Your task to perform on an android device: manage bookmarks in the chrome app Image 0: 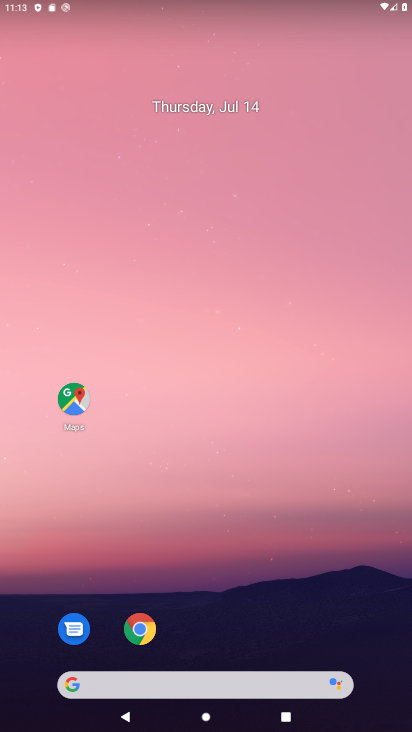
Step 0: click (139, 620)
Your task to perform on an android device: manage bookmarks in the chrome app Image 1: 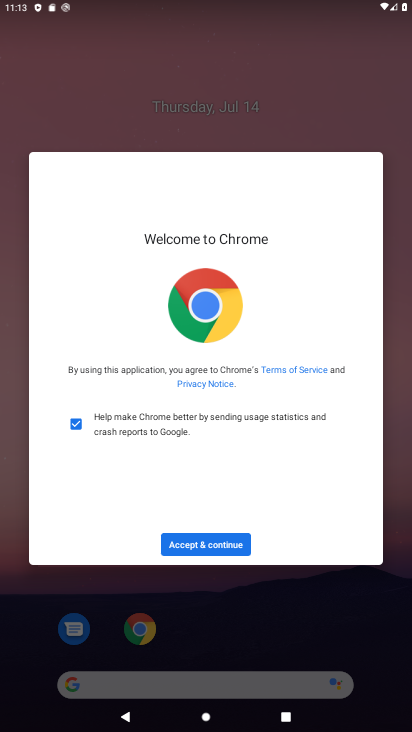
Step 1: click (173, 539)
Your task to perform on an android device: manage bookmarks in the chrome app Image 2: 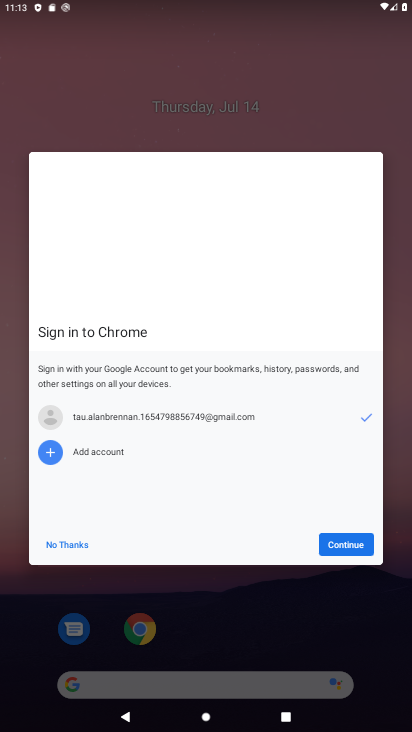
Step 2: click (344, 538)
Your task to perform on an android device: manage bookmarks in the chrome app Image 3: 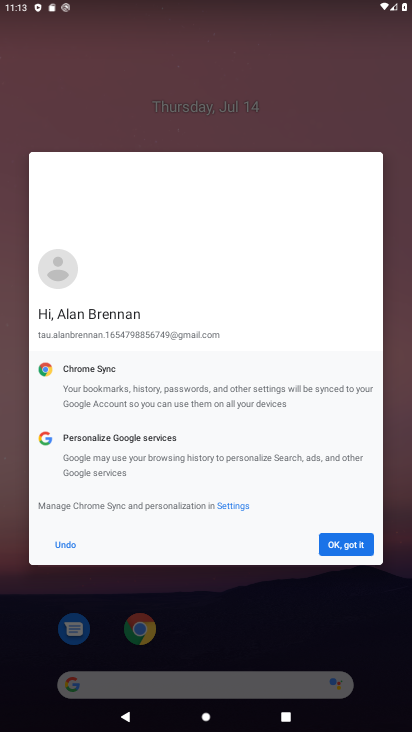
Step 3: click (344, 538)
Your task to perform on an android device: manage bookmarks in the chrome app Image 4: 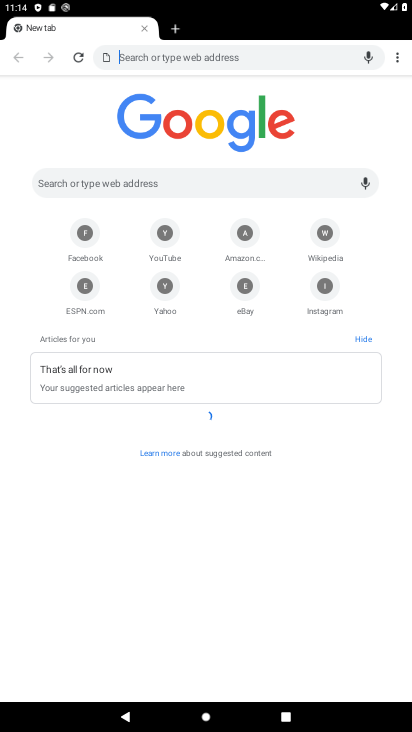
Step 4: click (402, 66)
Your task to perform on an android device: manage bookmarks in the chrome app Image 5: 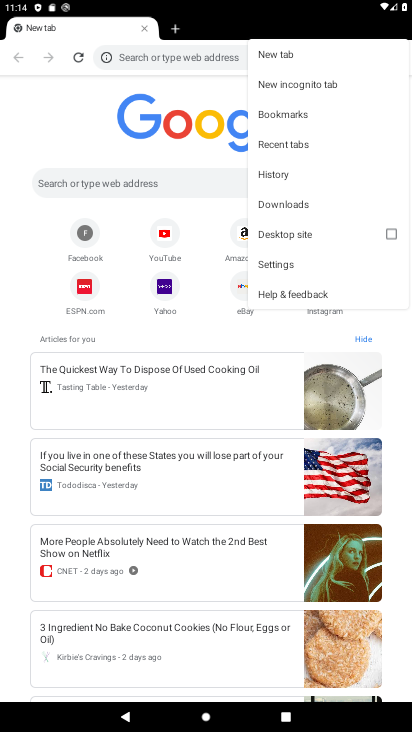
Step 5: click (291, 116)
Your task to perform on an android device: manage bookmarks in the chrome app Image 6: 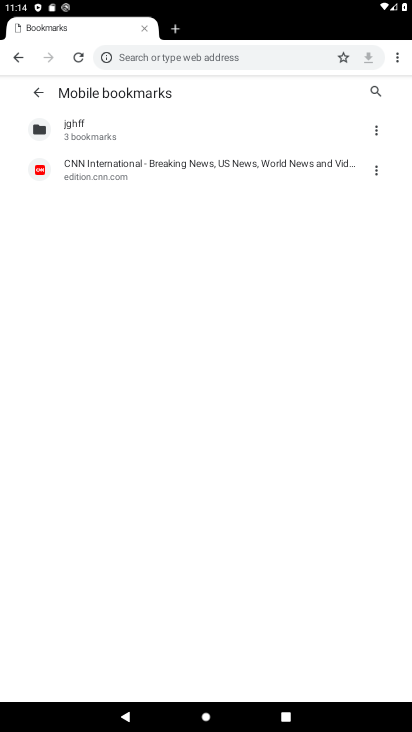
Step 6: click (387, 177)
Your task to perform on an android device: manage bookmarks in the chrome app Image 7: 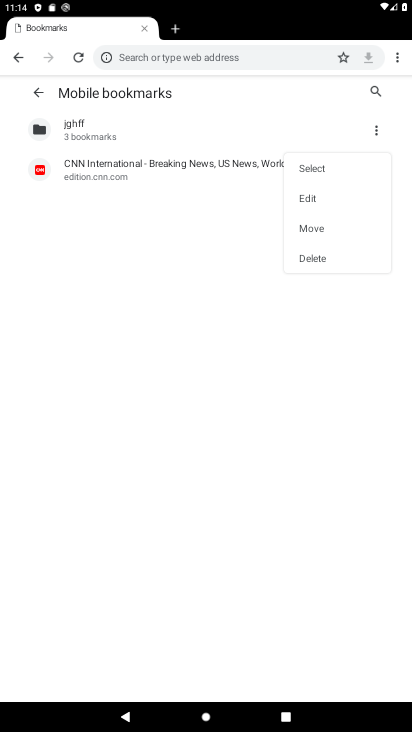
Step 7: click (313, 257)
Your task to perform on an android device: manage bookmarks in the chrome app Image 8: 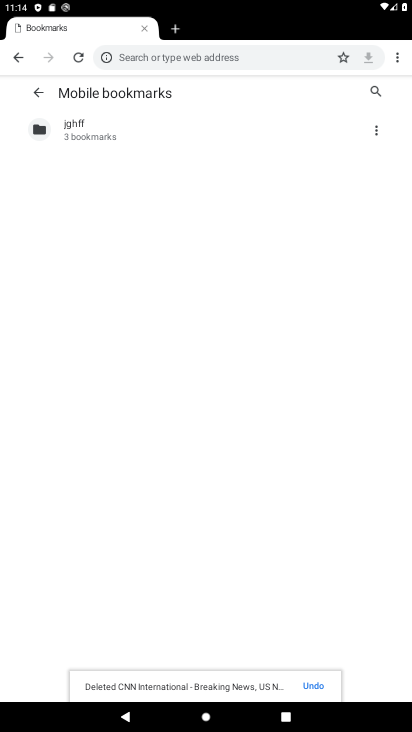
Step 8: task complete